Your task to perform on an android device: turn off sleep mode Image 0: 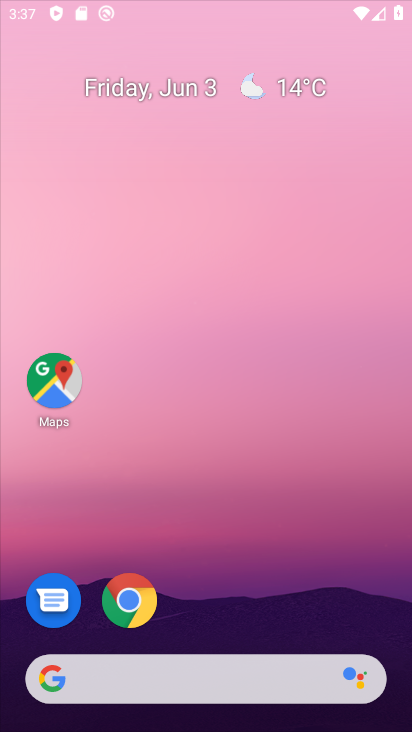
Step 0: drag from (39, 590) to (258, 257)
Your task to perform on an android device: turn off sleep mode Image 1: 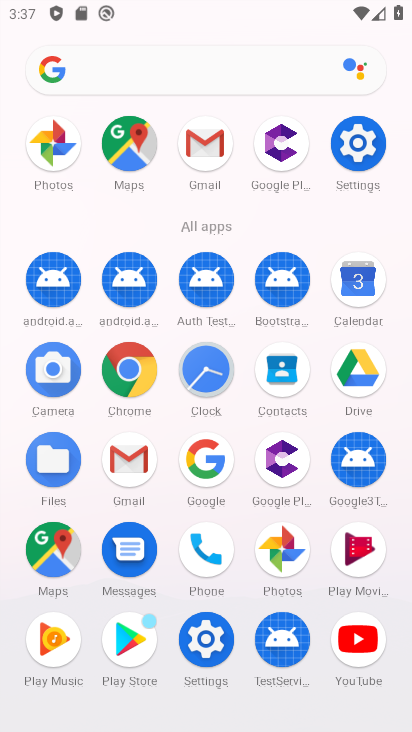
Step 1: click (368, 143)
Your task to perform on an android device: turn off sleep mode Image 2: 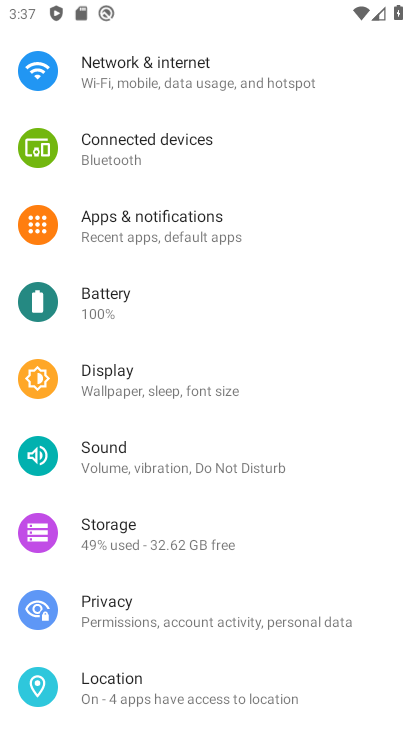
Step 2: click (167, 389)
Your task to perform on an android device: turn off sleep mode Image 3: 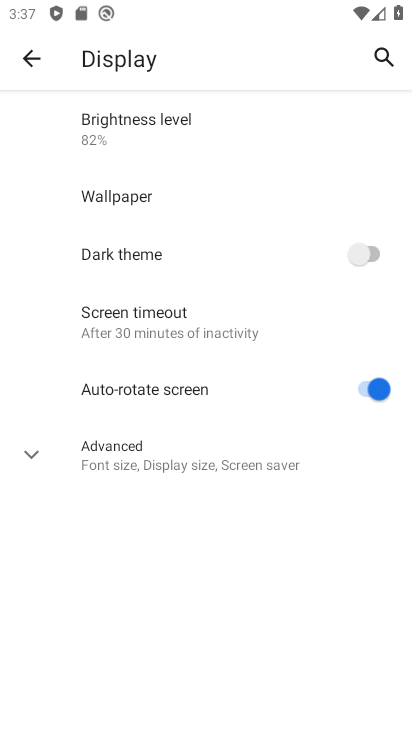
Step 3: task complete